Your task to perform on an android device: Open Yahoo.com Image 0: 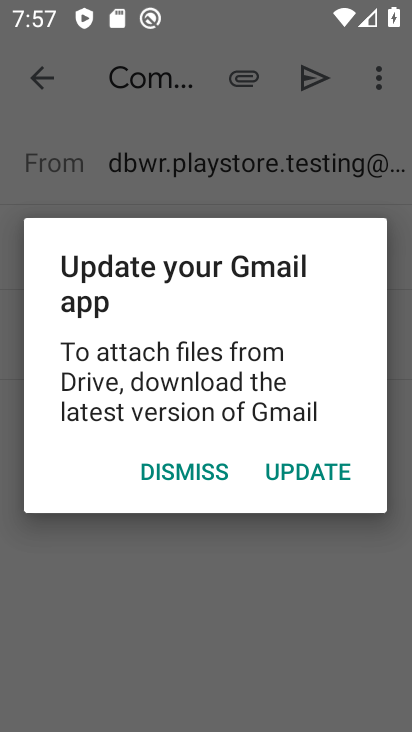
Step 0: press home button
Your task to perform on an android device: Open Yahoo.com Image 1: 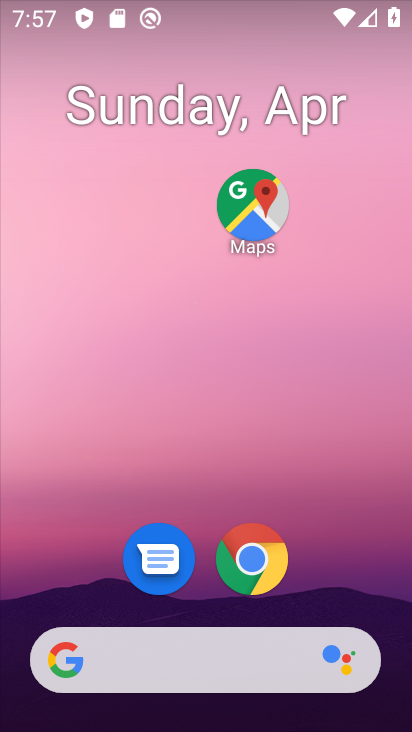
Step 1: click (241, 566)
Your task to perform on an android device: Open Yahoo.com Image 2: 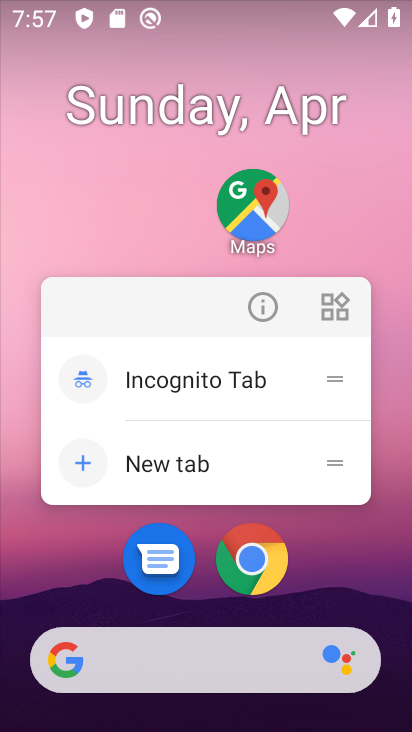
Step 2: click (257, 305)
Your task to perform on an android device: Open Yahoo.com Image 3: 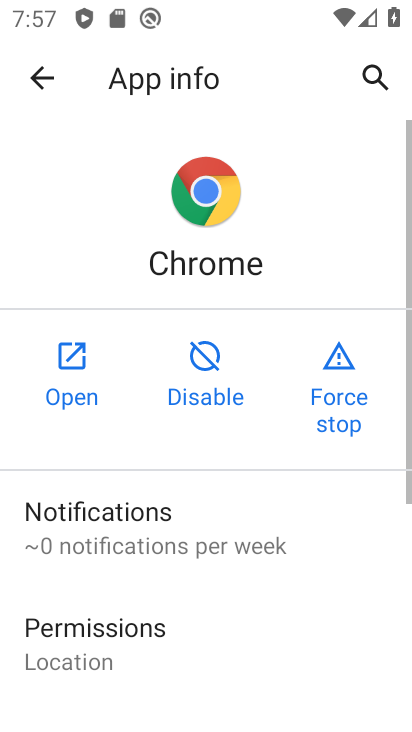
Step 3: click (79, 363)
Your task to perform on an android device: Open Yahoo.com Image 4: 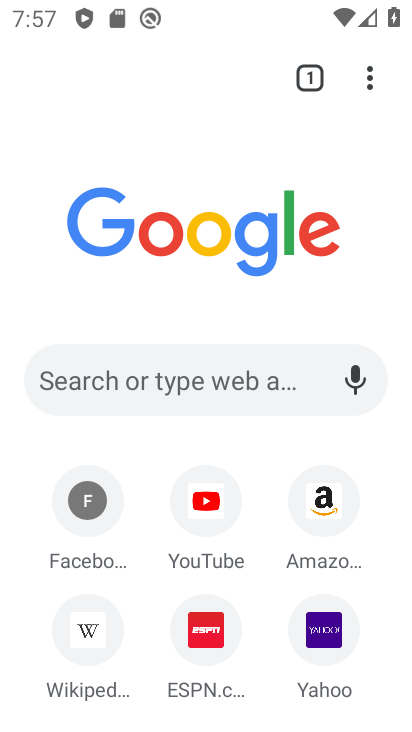
Step 4: click (332, 630)
Your task to perform on an android device: Open Yahoo.com Image 5: 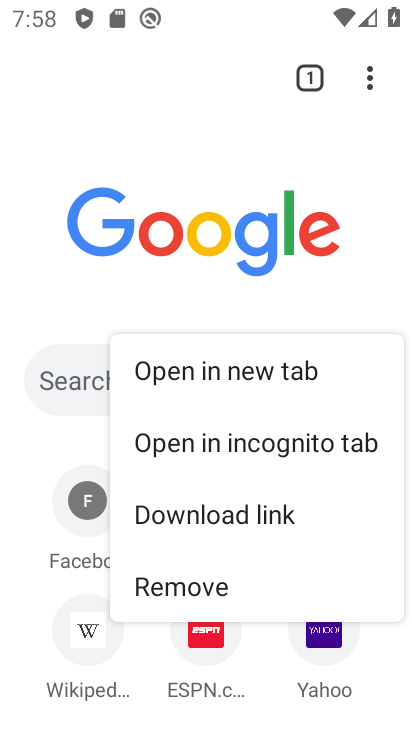
Step 5: click (315, 633)
Your task to perform on an android device: Open Yahoo.com Image 6: 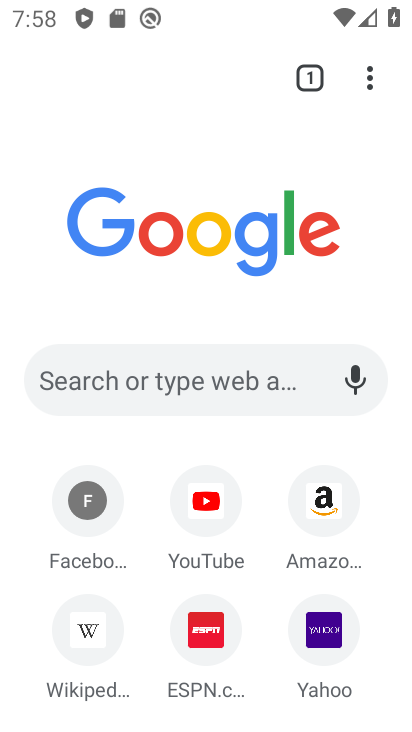
Step 6: click (316, 632)
Your task to perform on an android device: Open Yahoo.com Image 7: 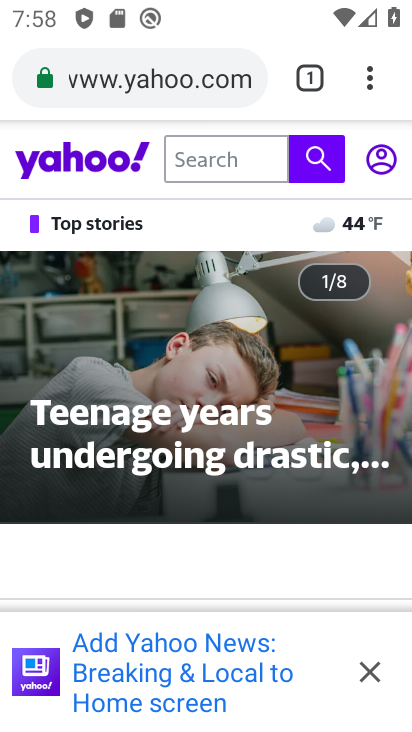
Step 7: task complete